Your task to perform on an android device: What's the weather going to be this weekend? Image 0: 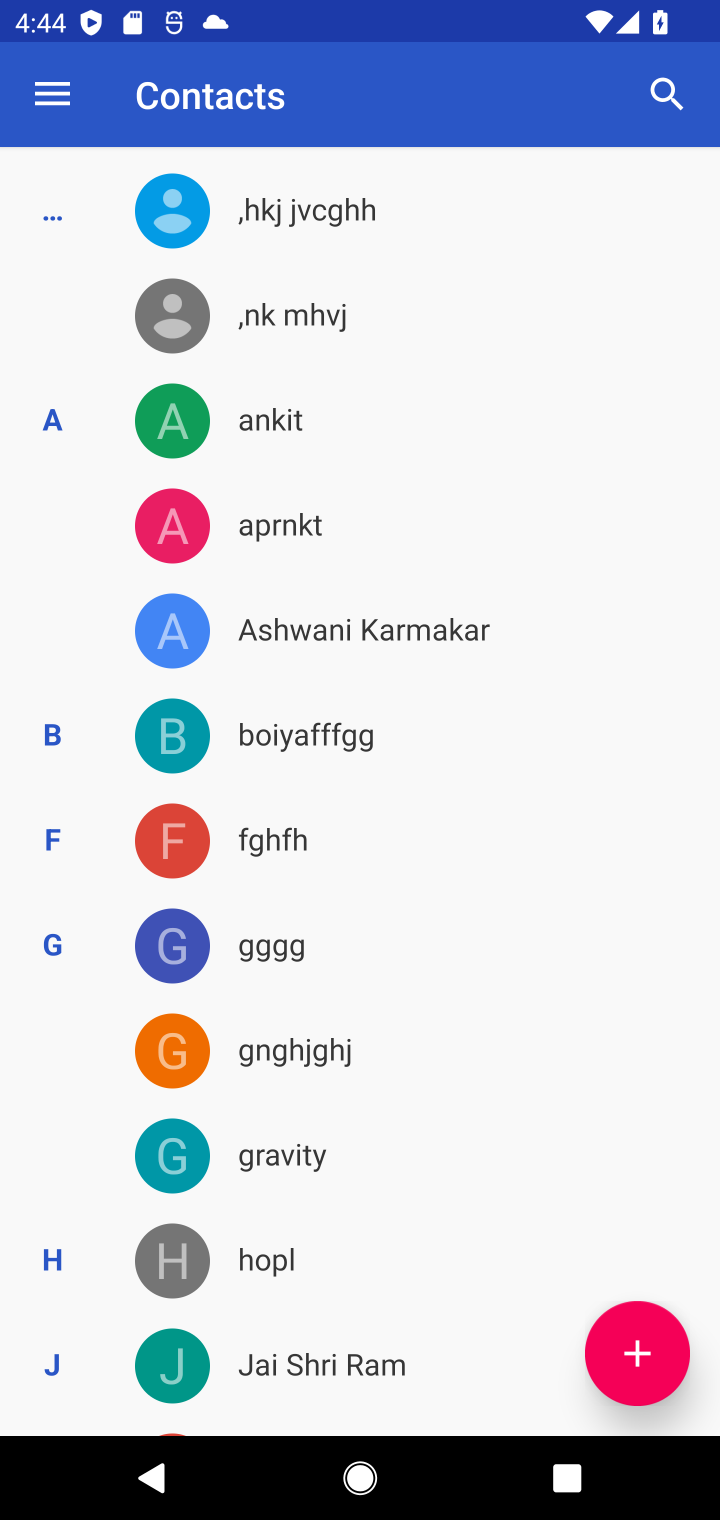
Step 0: press home button
Your task to perform on an android device: What's the weather going to be this weekend? Image 1: 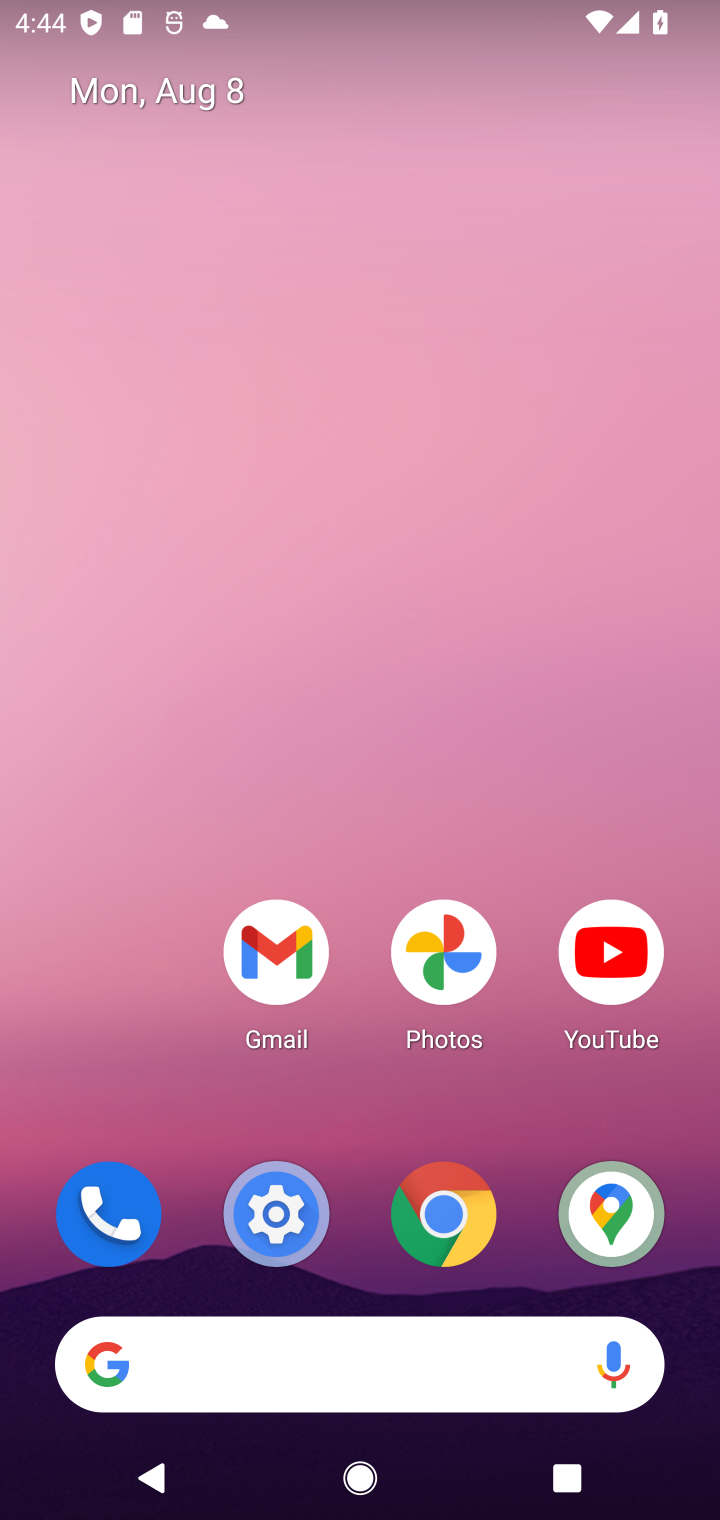
Step 1: drag from (383, 1028) to (381, 90)
Your task to perform on an android device: What's the weather going to be this weekend? Image 2: 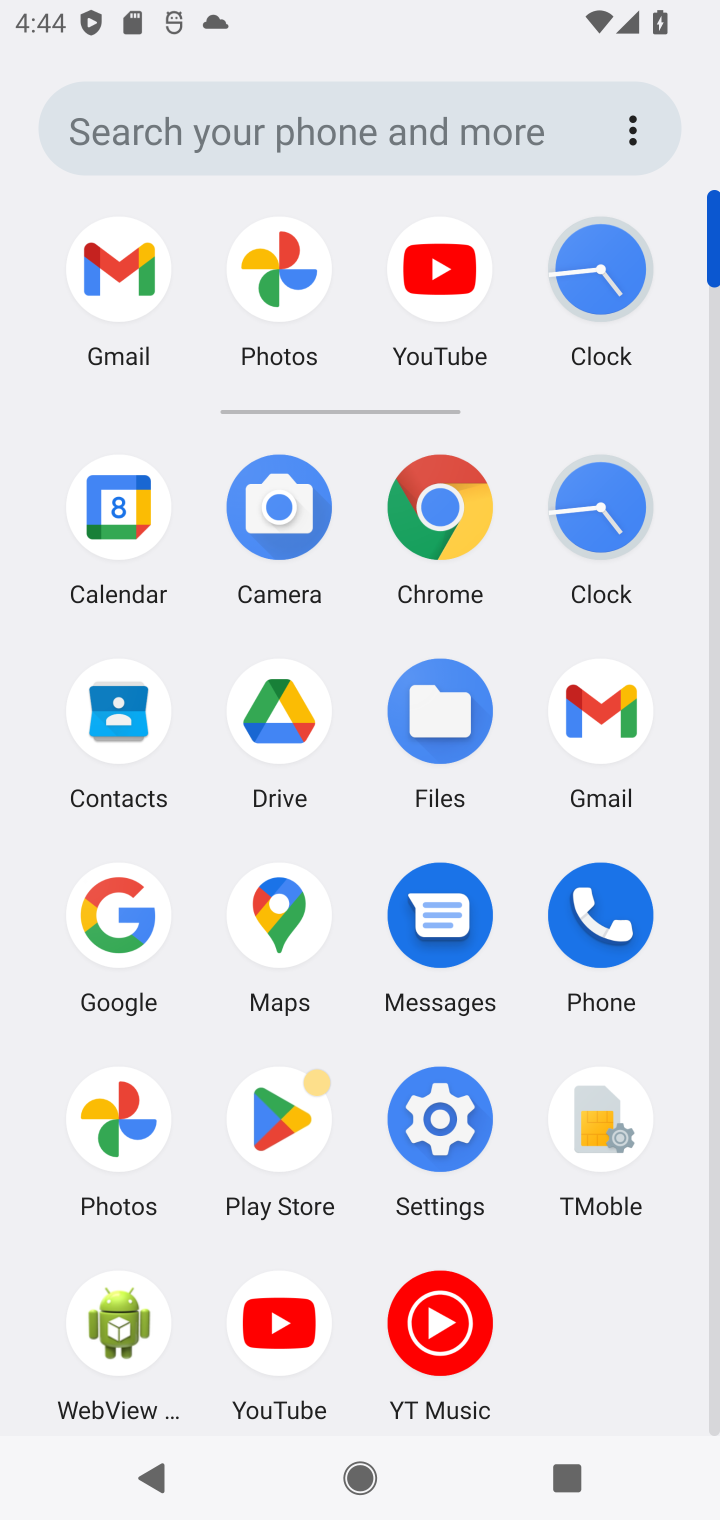
Step 2: click (108, 913)
Your task to perform on an android device: What's the weather going to be this weekend? Image 3: 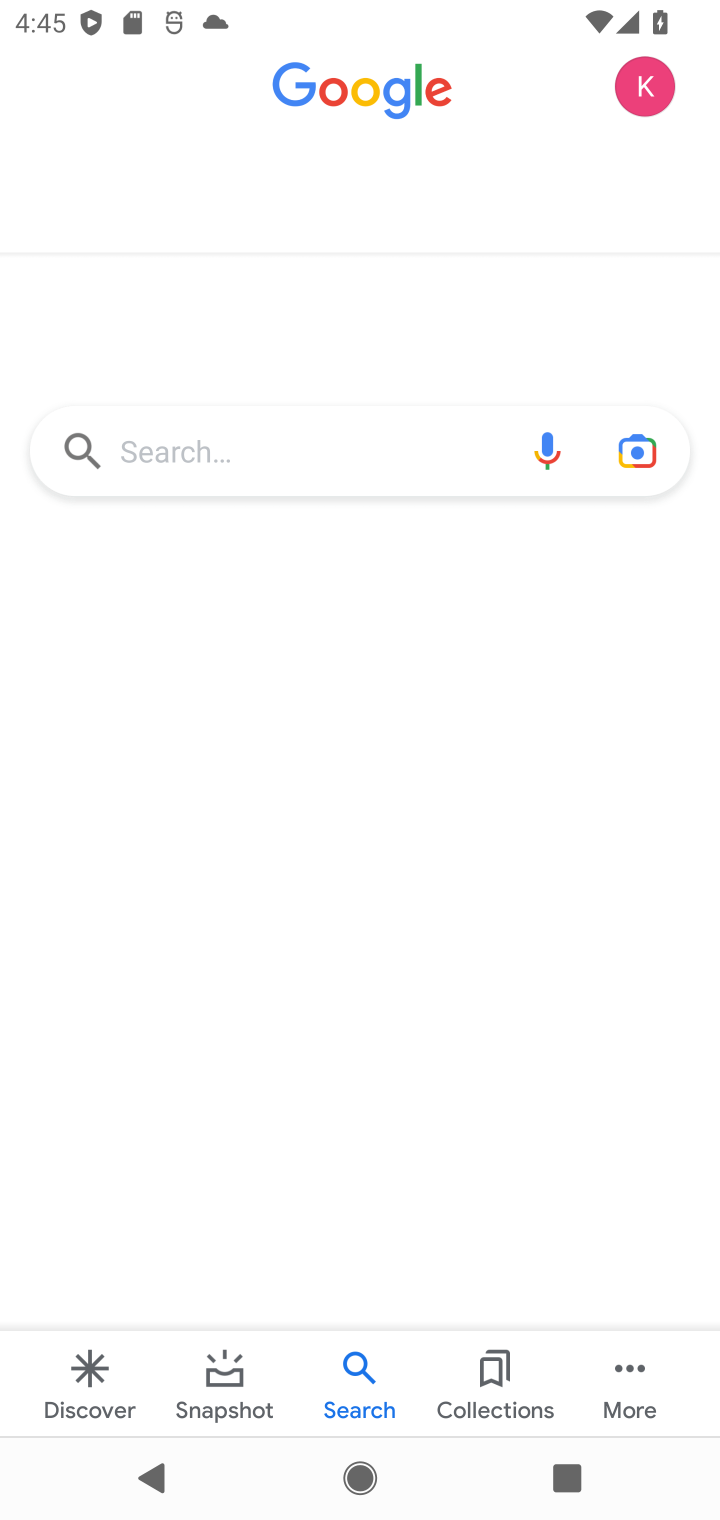
Step 3: click (258, 445)
Your task to perform on an android device: What's the weather going to be this weekend? Image 4: 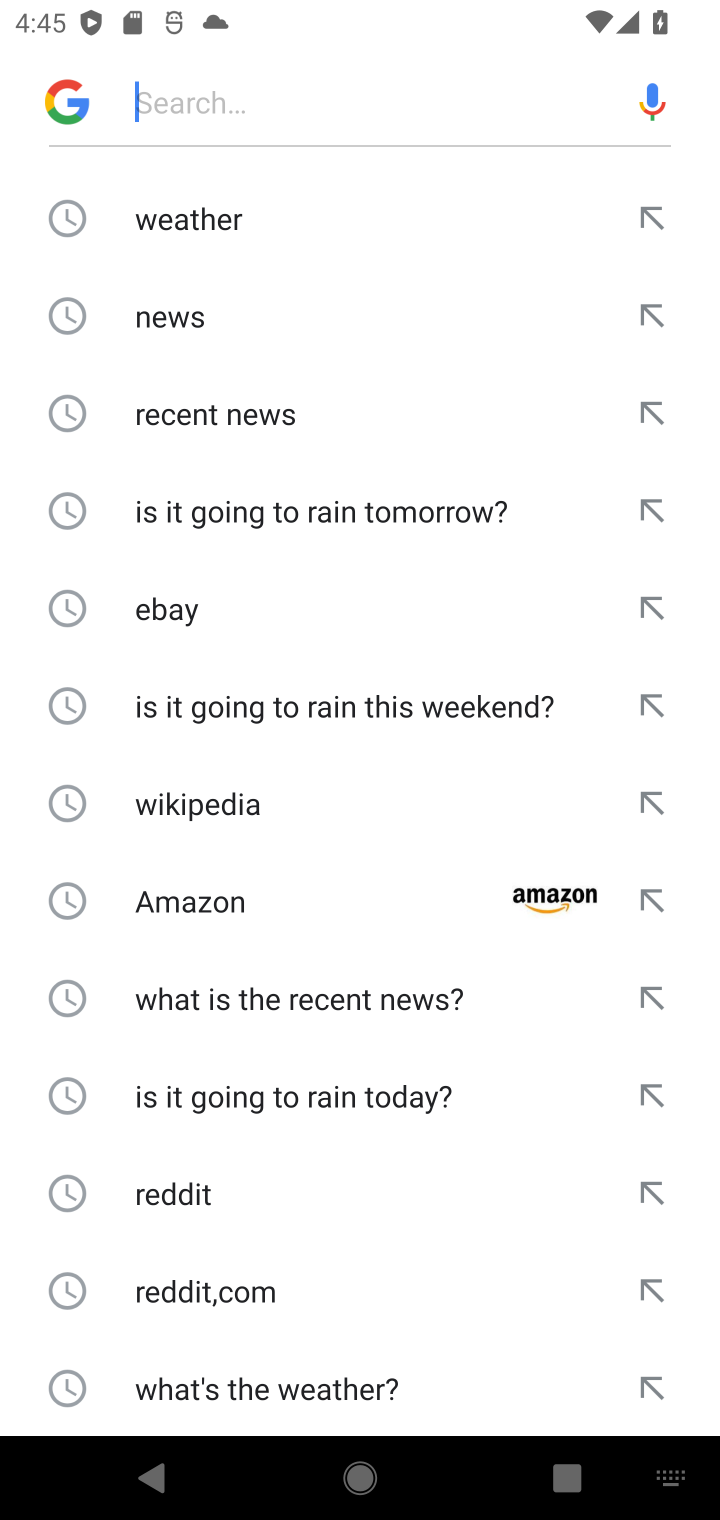
Step 4: click (168, 216)
Your task to perform on an android device: What's the weather going to be this weekend? Image 5: 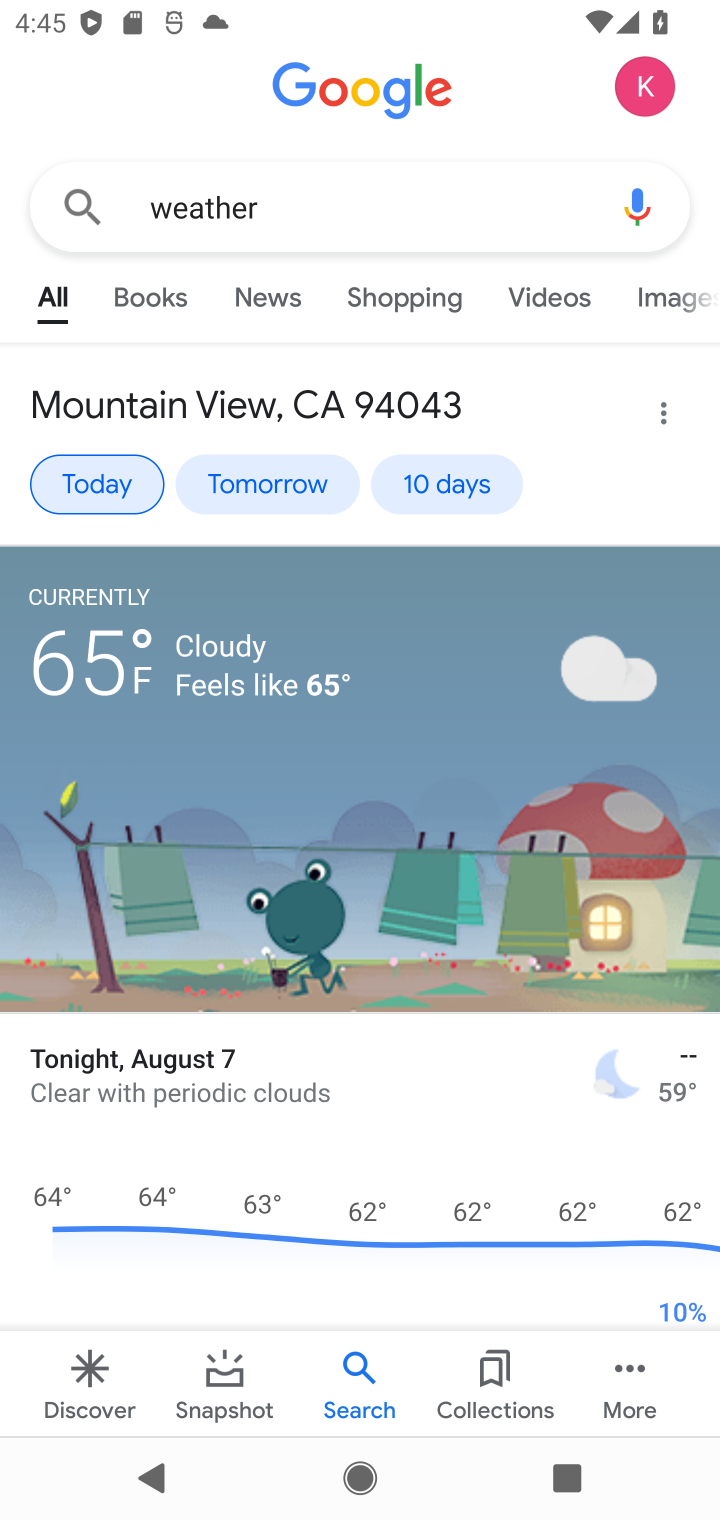
Step 5: click (452, 477)
Your task to perform on an android device: What's the weather going to be this weekend? Image 6: 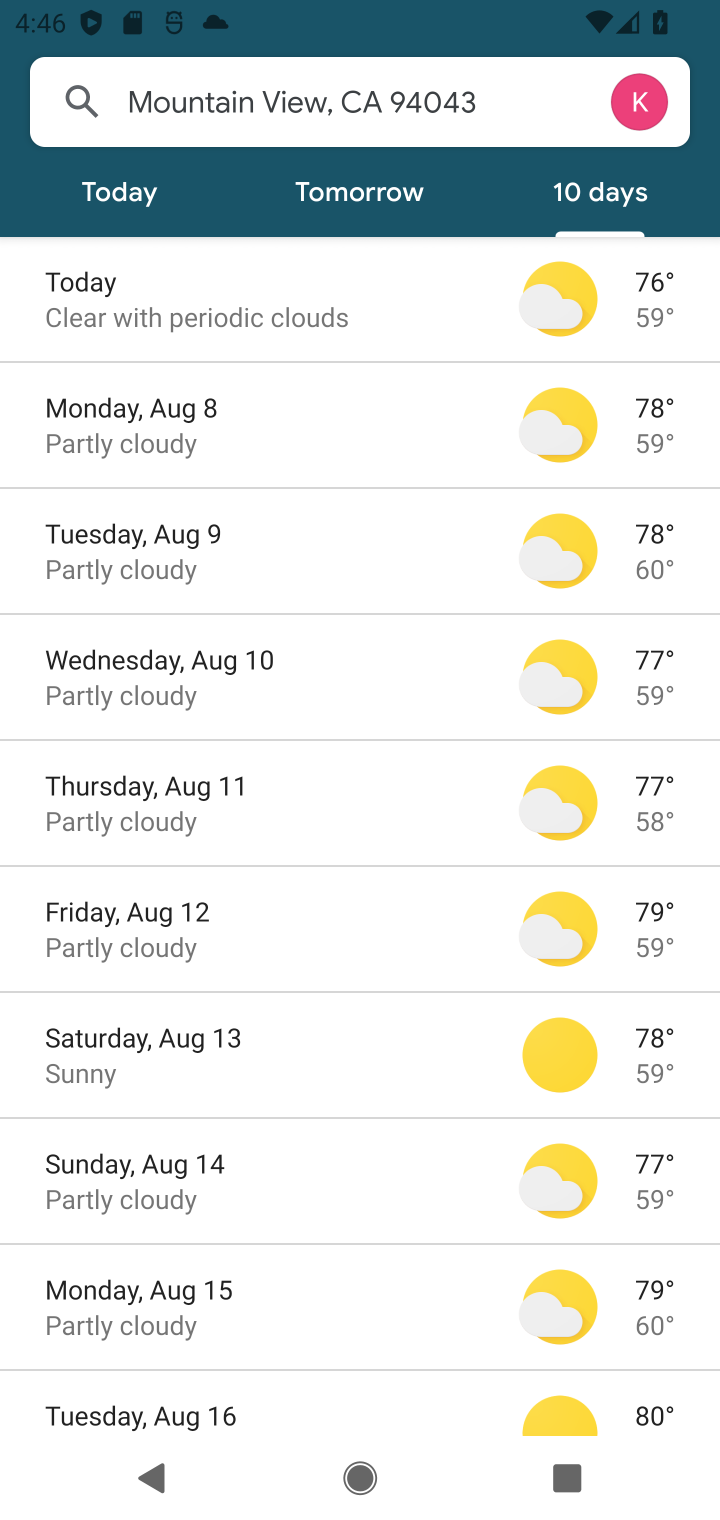
Step 6: click (96, 1044)
Your task to perform on an android device: What's the weather going to be this weekend? Image 7: 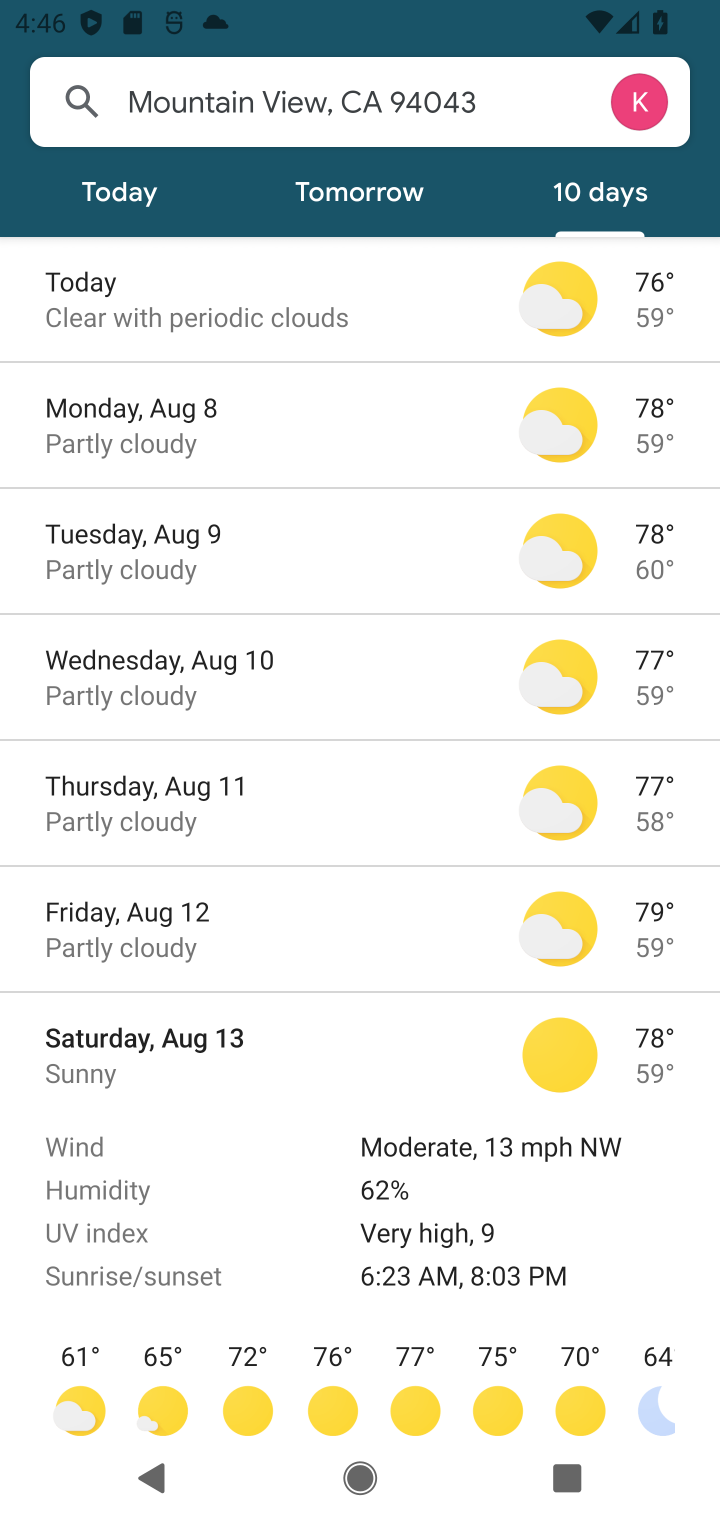
Step 7: task complete